Your task to perform on an android device: add a contact in the contacts app Image 0: 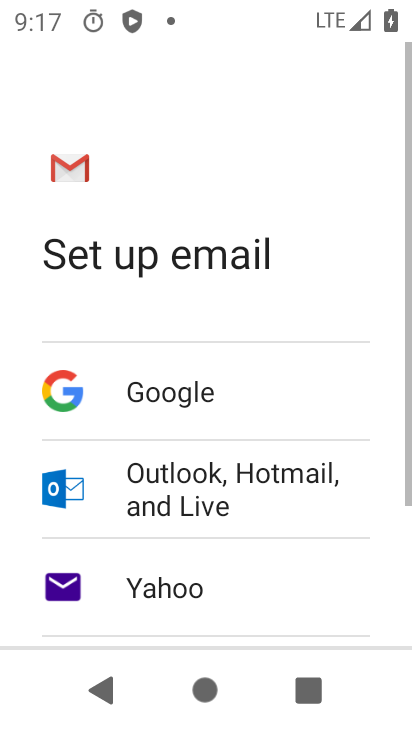
Step 0: press home button
Your task to perform on an android device: add a contact in the contacts app Image 1: 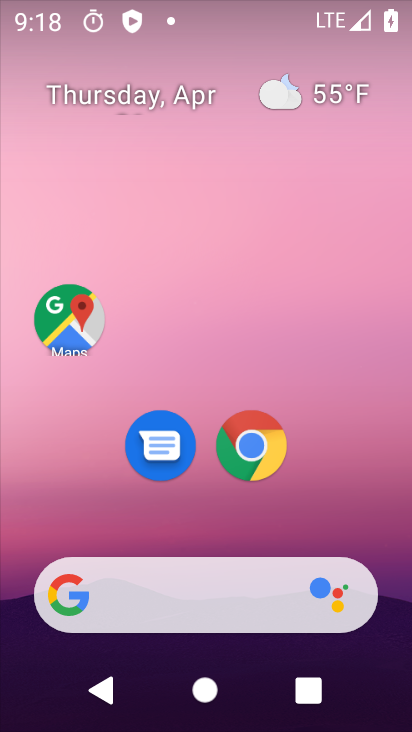
Step 1: drag from (379, 539) to (377, 7)
Your task to perform on an android device: add a contact in the contacts app Image 2: 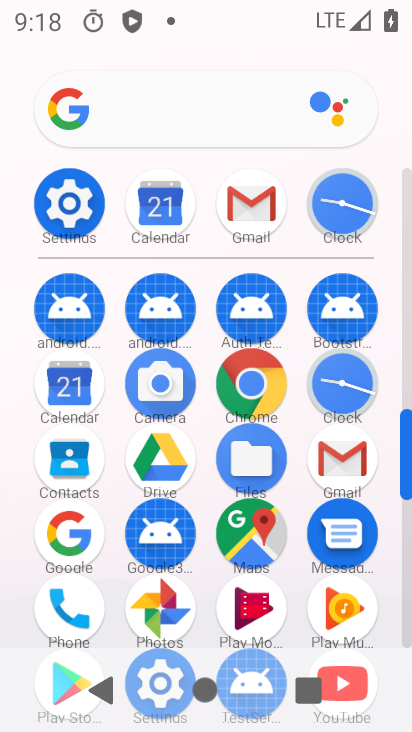
Step 2: click (69, 456)
Your task to perform on an android device: add a contact in the contacts app Image 3: 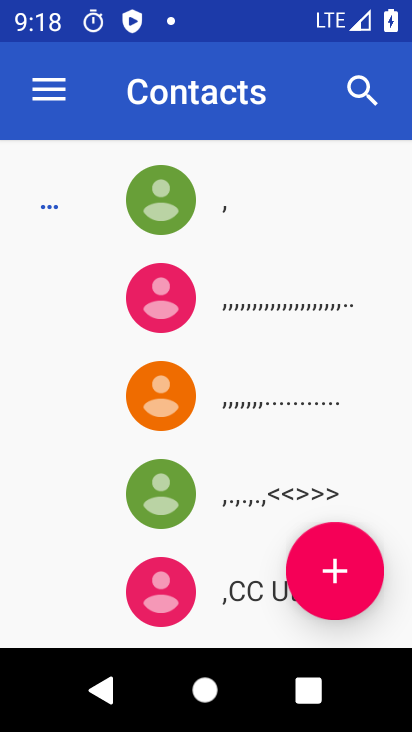
Step 3: click (337, 578)
Your task to perform on an android device: add a contact in the contacts app Image 4: 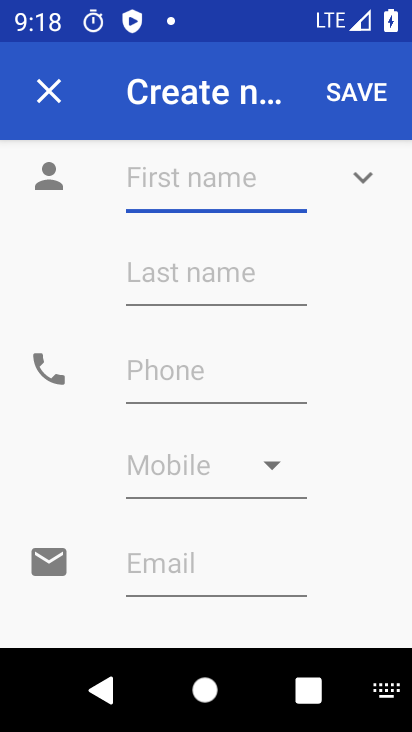
Step 4: type "tannu"
Your task to perform on an android device: add a contact in the contacts app Image 5: 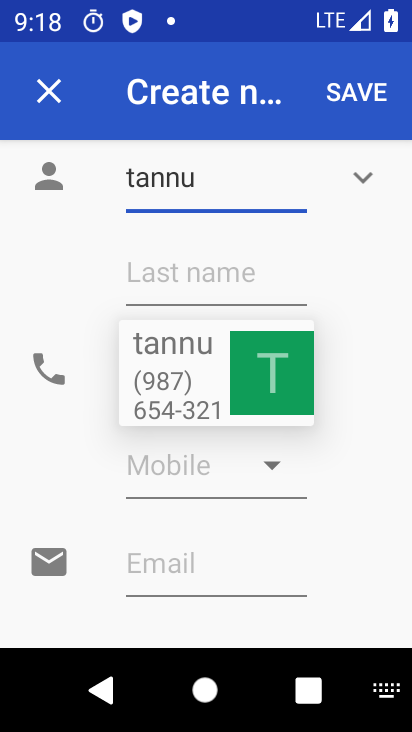
Step 5: click (353, 377)
Your task to perform on an android device: add a contact in the contacts app Image 6: 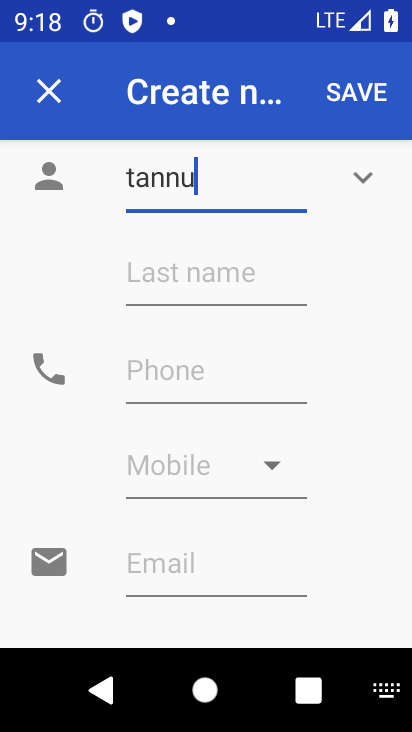
Step 6: click (227, 376)
Your task to perform on an android device: add a contact in the contacts app Image 7: 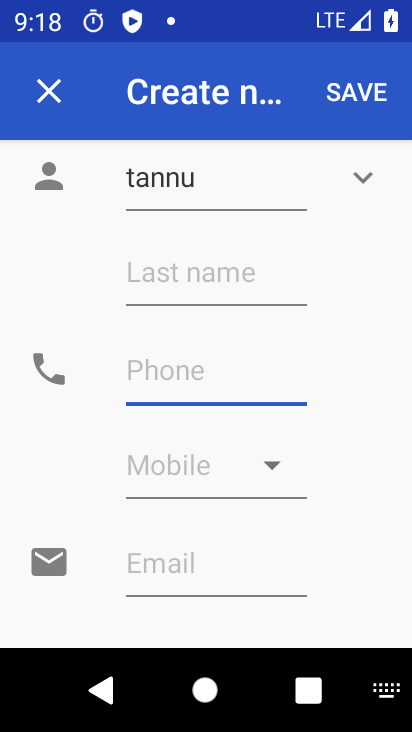
Step 7: type "78654398765"
Your task to perform on an android device: add a contact in the contacts app Image 8: 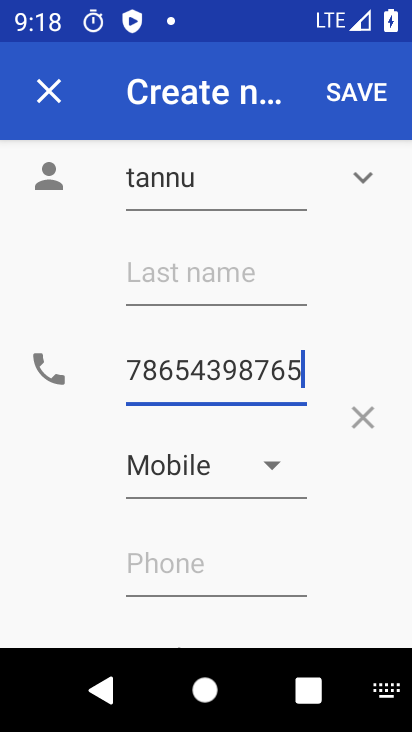
Step 8: click (350, 79)
Your task to perform on an android device: add a contact in the contacts app Image 9: 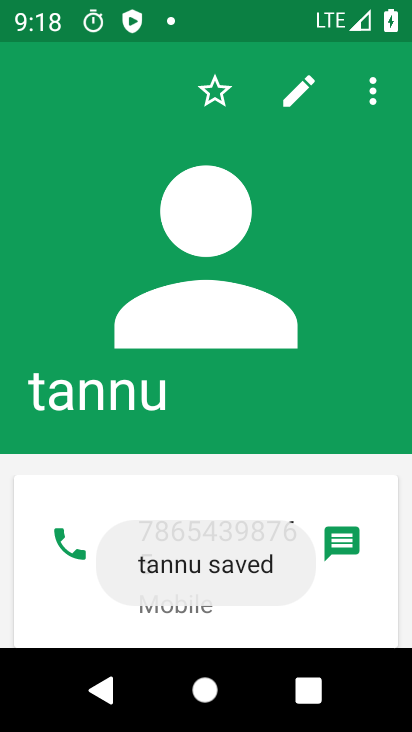
Step 9: task complete